Your task to perform on an android device: turn off picture-in-picture Image 0: 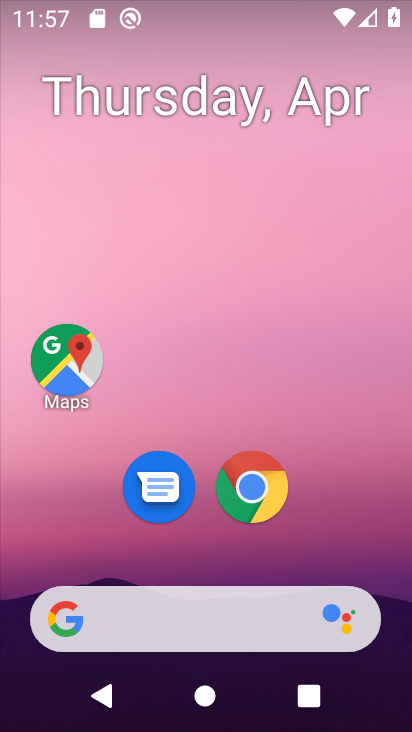
Step 0: drag from (303, 557) to (301, 171)
Your task to perform on an android device: turn off picture-in-picture Image 1: 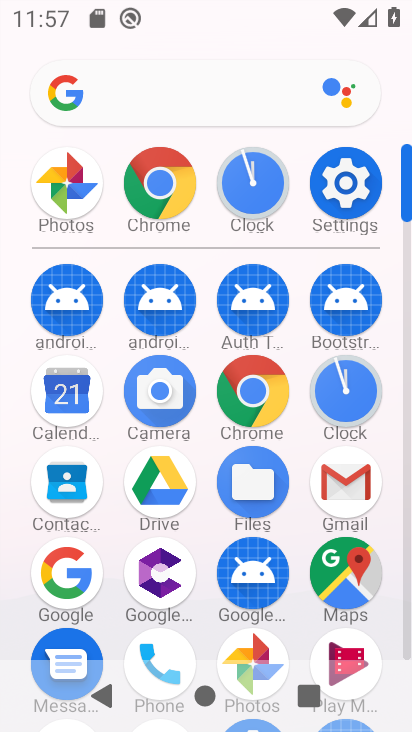
Step 1: click (323, 174)
Your task to perform on an android device: turn off picture-in-picture Image 2: 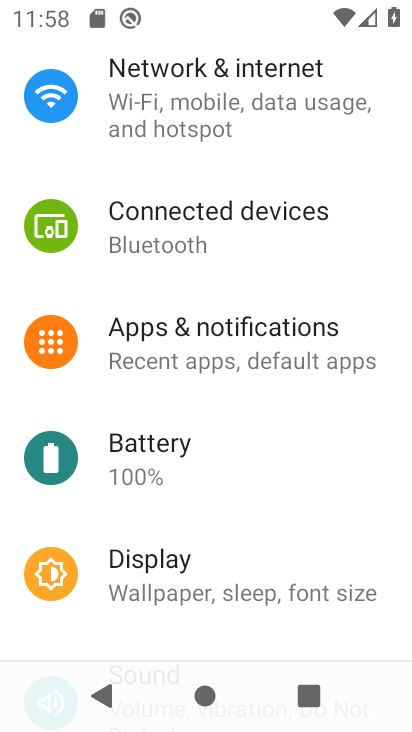
Step 2: click (238, 343)
Your task to perform on an android device: turn off picture-in-picture Image 3: 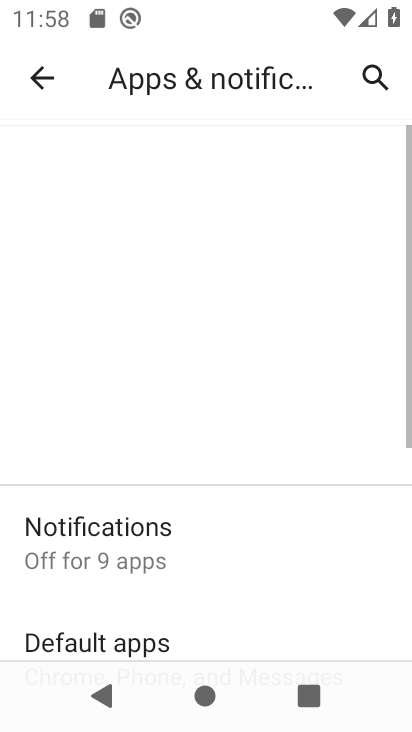
Step 3: drag from (226, 583) to (230, 168)
Your task to perform on an android device: turn off picture-in-picture Image 4: 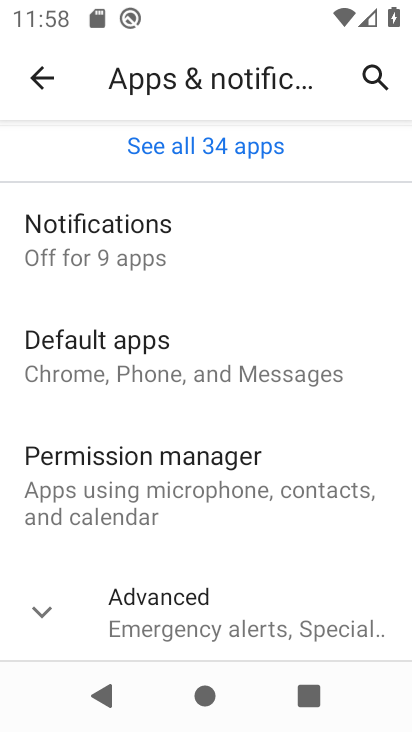
Step 4: click (214, 626)
Your task to perform on an android device: turn off picture-in-picture Image 5: 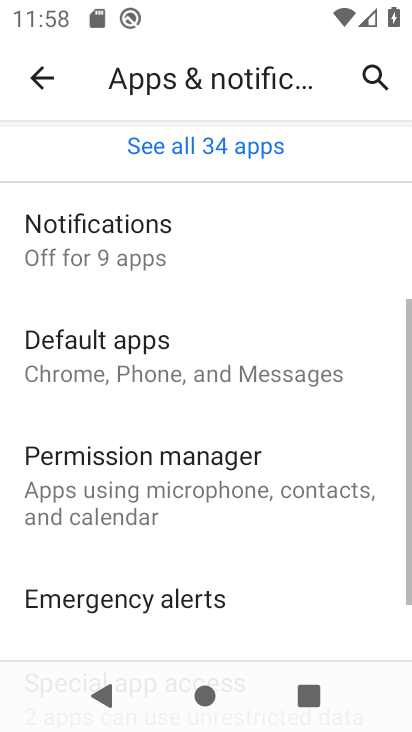
Step 5: drag from (207, 544) to (215, 168)
Your task to perform on an android device: turn off picture-in-picture Image 6: 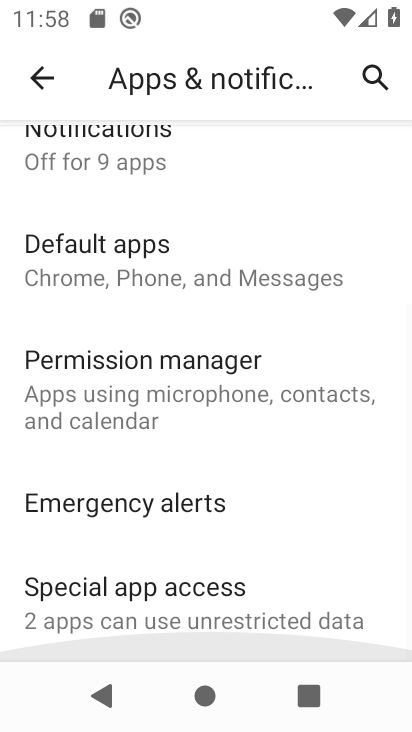
Step 6: click (137, 599)
Your task to perform on an android device: turn off picture-in-picture Image 7: 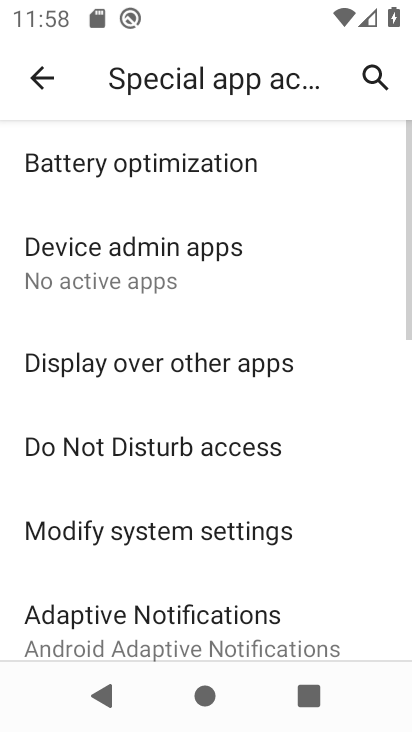
Step 7: drag from (182, 581) to (234, 124)
Your task to perform on an android device: turn off picture-in-picture Image 8: 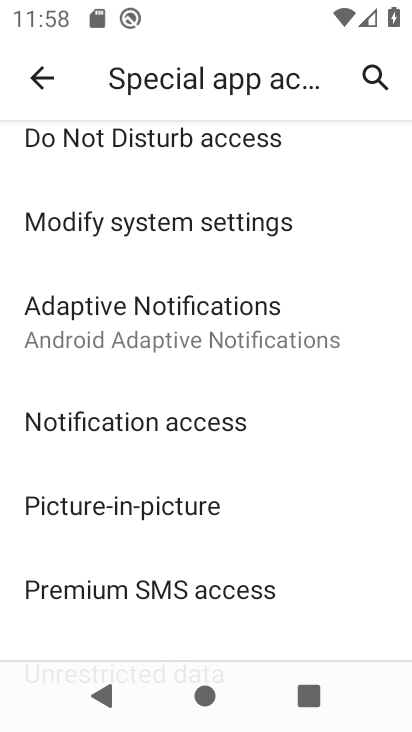
Step 8: click (150, 489)
Your task to perform on an android device: turn off picture-in-picture Image 9: 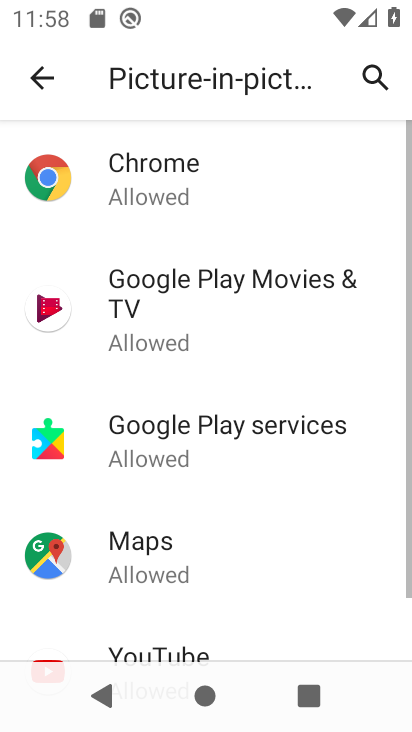
Step 9: drag from (237, 493) to (279, 193)
Your task to perform on an android device: turn off picture-in-picture Image 10: 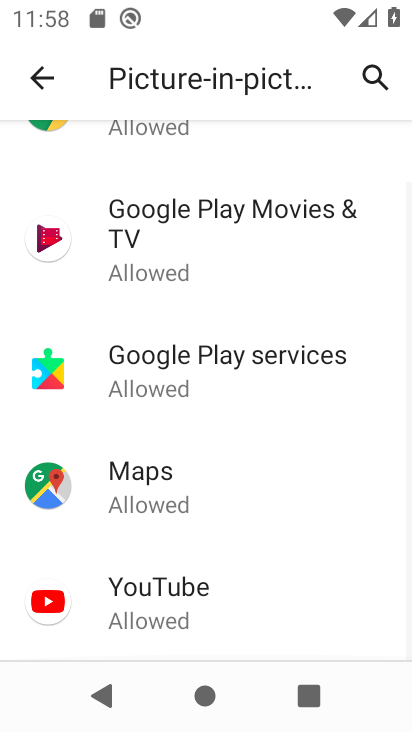
Step 10: click (181, 599)
Your task to perform on an android device: turn off picture-in-picture Image 11: 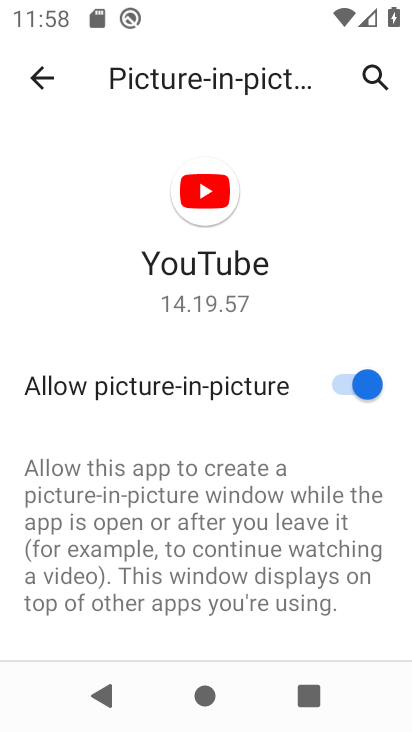
Step 11: click (331, 379)
Your task to perform on an android device: turn off picture-in-picture Image 12: 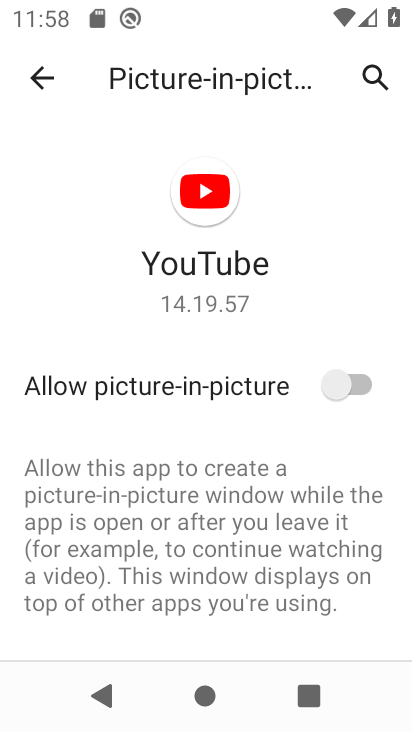
Step 12: task complete